Your task to perform on an android device: toggle javascript in the chrome app Image 0: 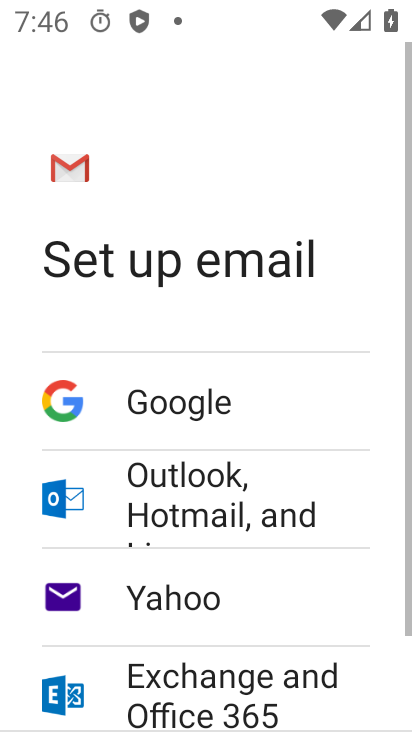
Step 0: press home button
Your task to perform on an android device: toggle javascript in the chrome app Image 1: 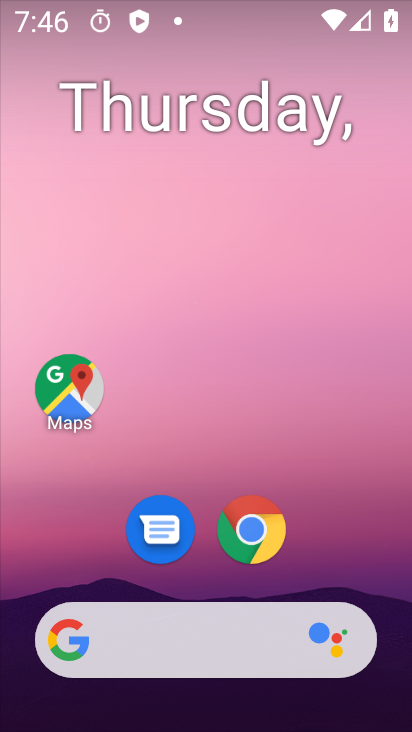
Step 1: click (258, 530)
Your task to perform on an android device: toggle javascript in the chrome app Image 2: 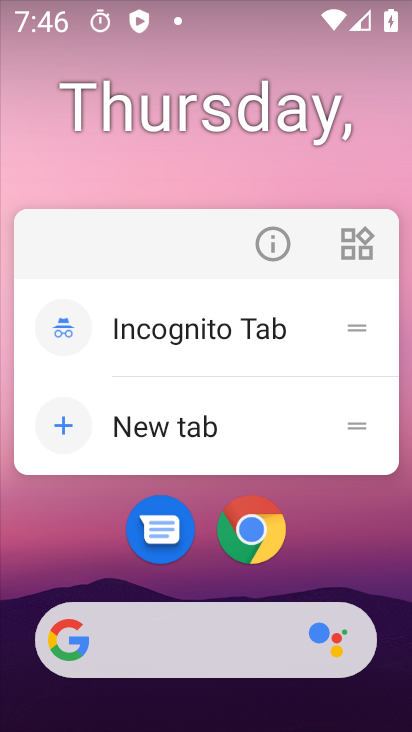
Step 2: click (244, 532)
Your task to perform on an android device: toggle javascript in the chrome app Image 3: 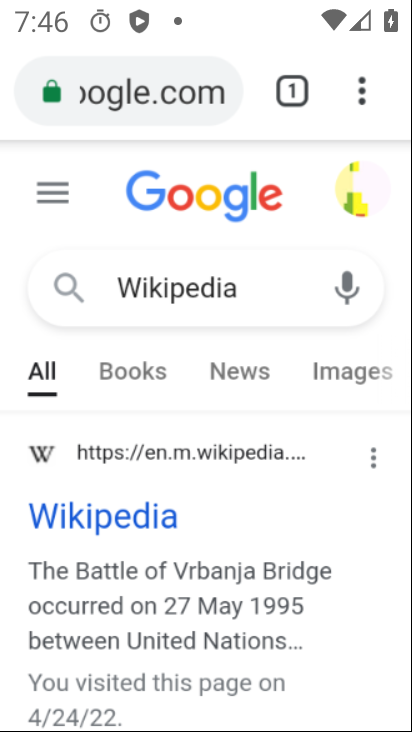
Step 3: click (357, 92)
Your task to perform on an android device: toggle javascript in the chrome app Image 4: 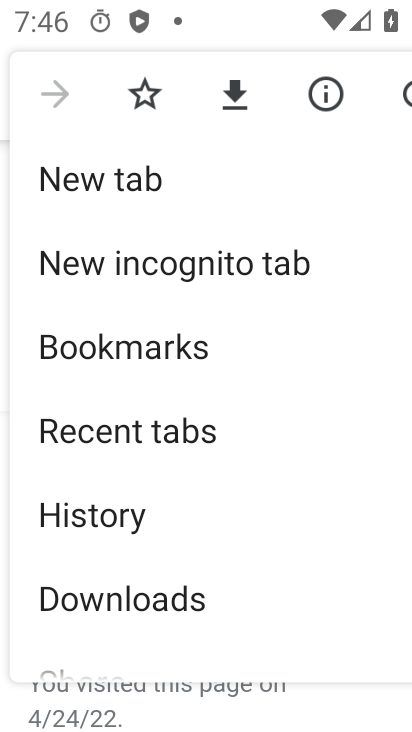
Step 4: drag from (292, 599) to (274, 301)
Your task to perform on an android device: toggle javascript in the chrome app Image 5: 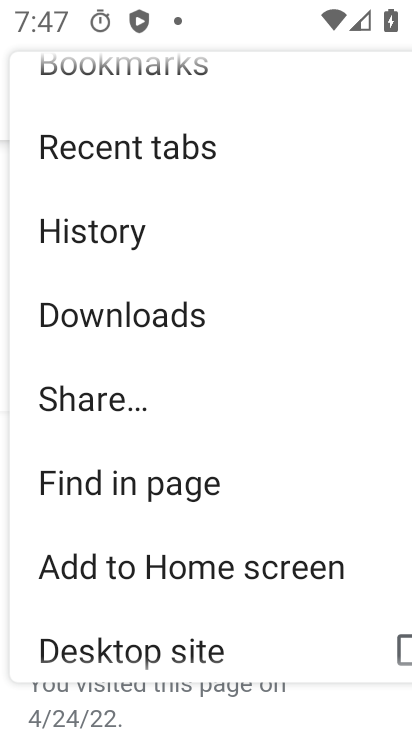
Step 5: drag from (351, 575) to (334, 296)
Your task to perform on an android device: toggle javascript in the chrome app Image 6: 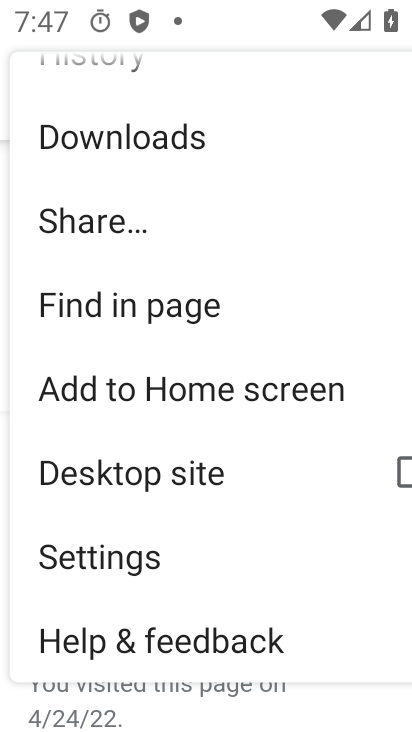
Step 6: click (138, 551)
Your task to perform on an android device: toggle javascript in the chrome app Image 7: 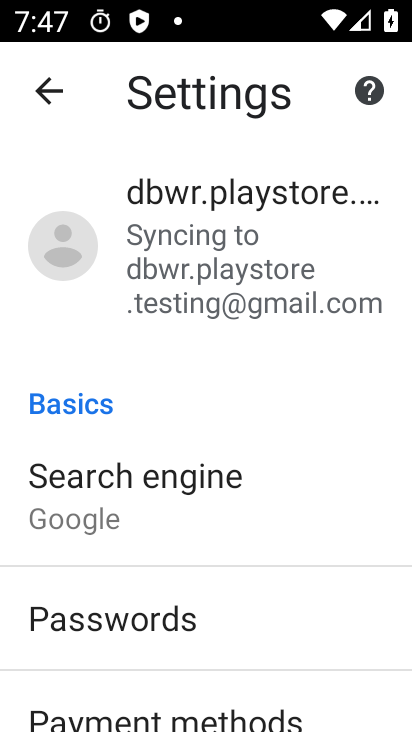
Step 7: drag from (347, 717) to (328, 176)
Your task to perform on an android device: toggle javascript in the chrome app Image 8: 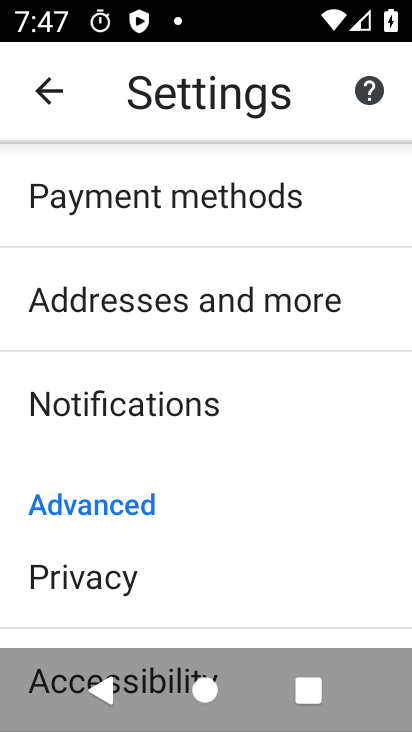
Step 8: drag from (328, 608) to (304, 164)
Your task to perform on an android device: toggle javascript in the chrome app Image 9: 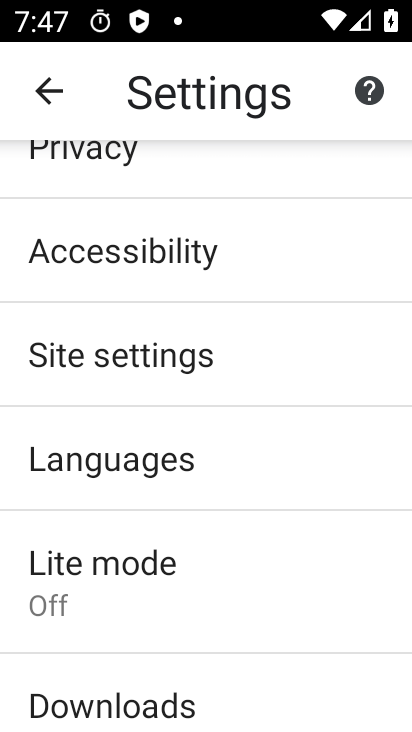
Step 9: click (65, 343)
Your task to perform on an android device: toggle javascript in the chrome app Image 10: 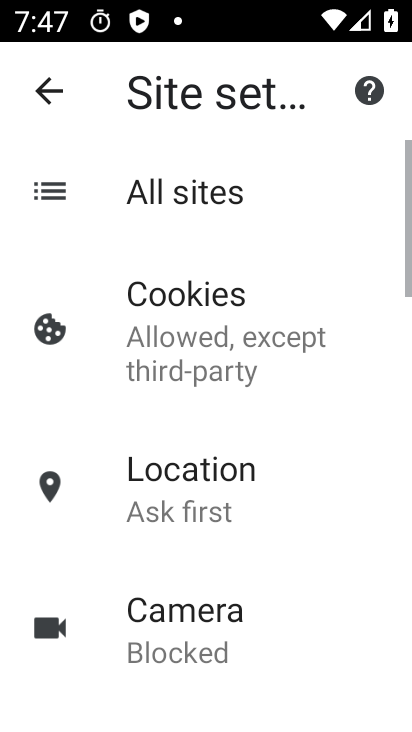
Step 10: drag from (295, 669) to (292, 255)
Your task to perform on an android device: toggle javascript in the chrome app Image 11: 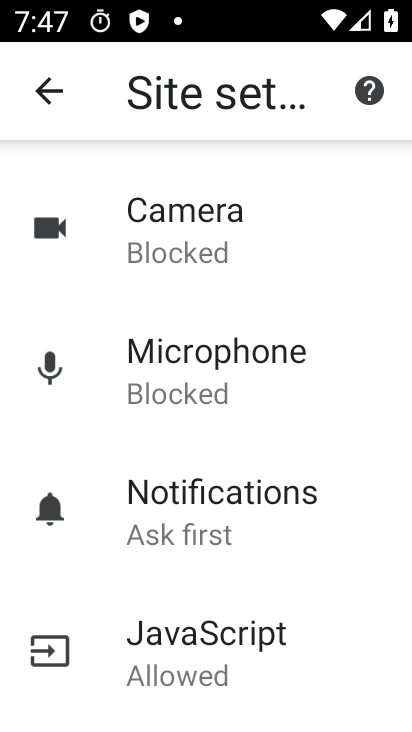
Step 11: click (215, 636)
Your task to perform on an android device: toggle javascript in the chrome app Image 12: 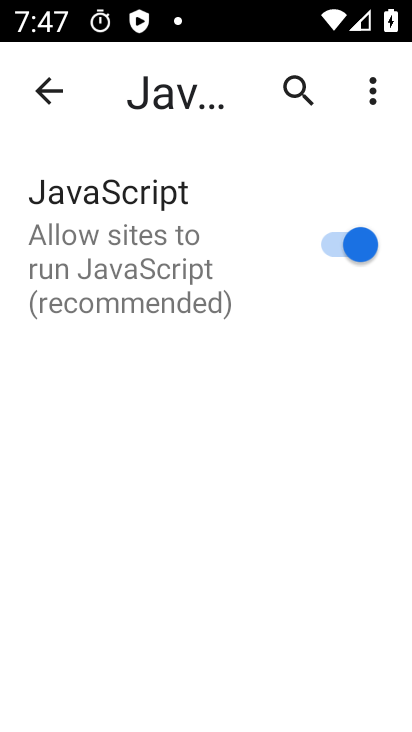
Step 12: click (340, 236)
Your task to perform on an android device: toggle javascript in the chrome app Image 13: 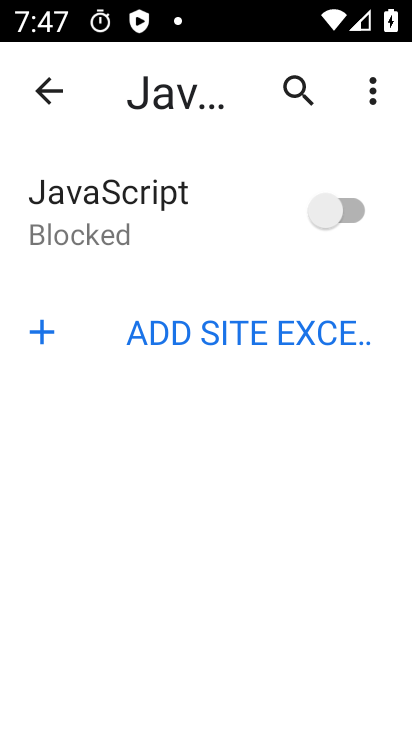
Step 13: task complete